Your task to perform on an android device: find which apps use the phone's location Image 0: 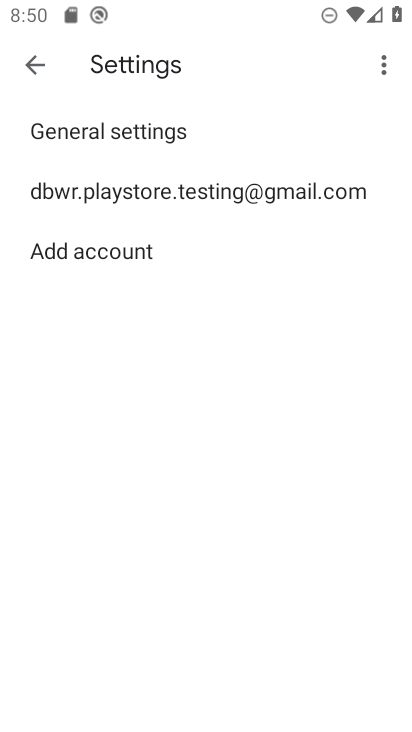
Step 0: press home button
Your task to perform on an android device: find which apps use the phone's location Image 1: 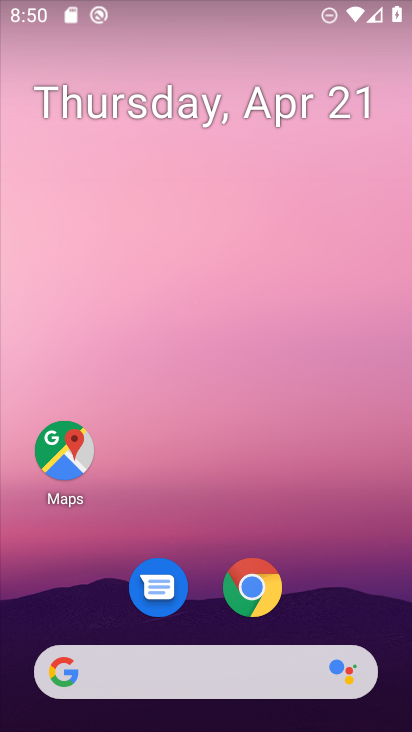
Step 1: drag from (368, 567) to (286, 92)
Your task to perform on an android device: find which apps use the phone's location Image 2: 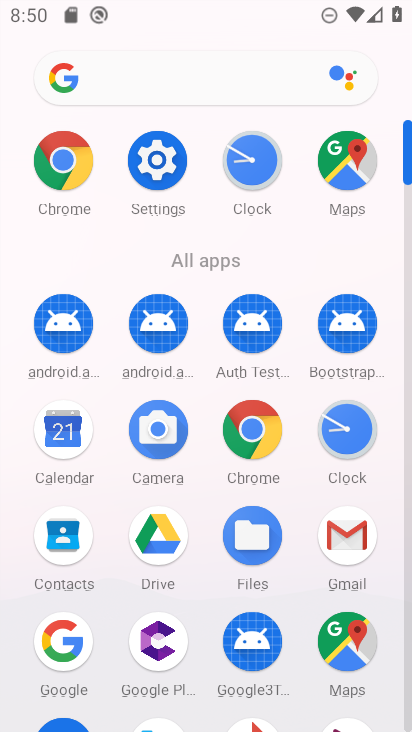
Step 2: click (168, 171)
Your task to perform on an android device: find which apps use the phone's location Image 3: 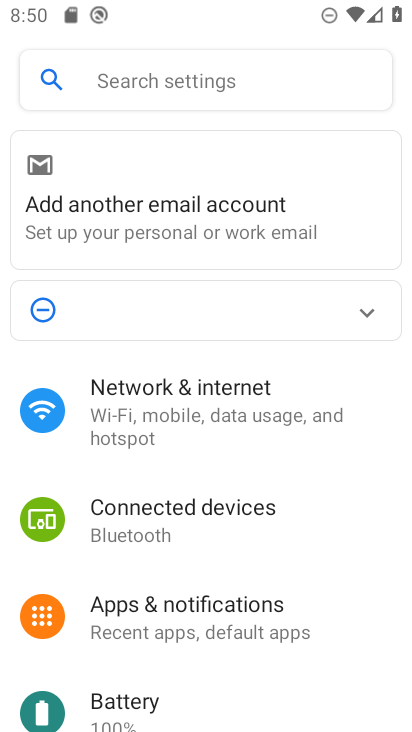
Step 3: drag from (359, 581) to (270, 181)
Your task to perform on an android device: find which apps use the phone's location Image 4: 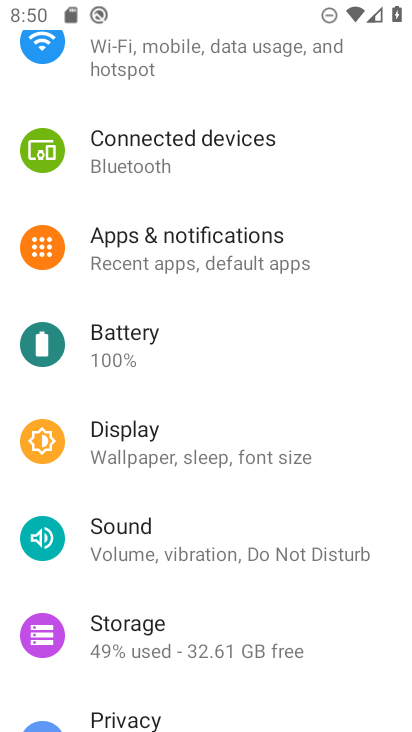
Step 4: drag from (213, 606) to (209, 275)
Your task to perform on an android device: find which apps use the phone's location Image 5: 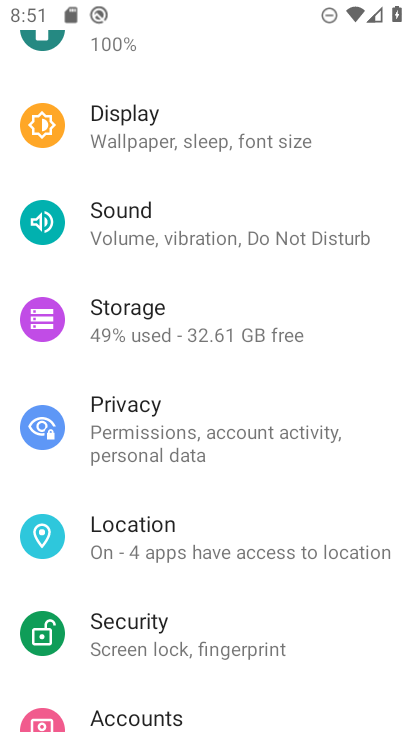
Step 5: click (170, 543)
Your task to perform on an android device: find which apps use the phone's location Image 6: 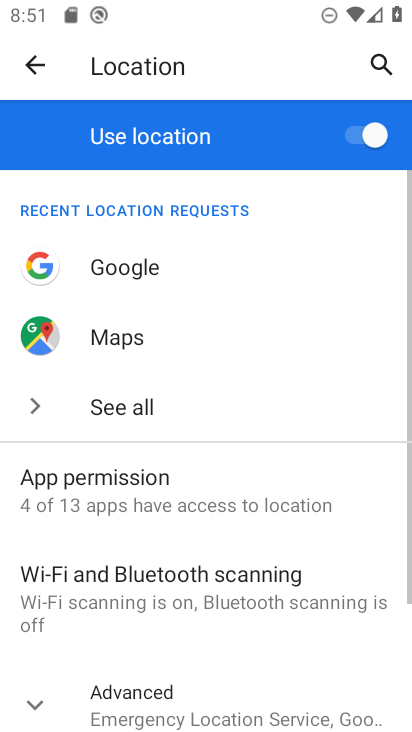
Step 6: click (126, 498)
Your task to perform on an android device: find which apps use the phone's location Image 7: 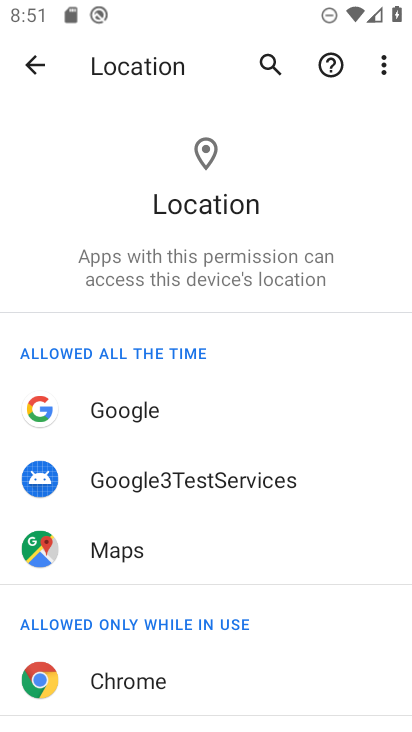
Step 7: task complete